Your task to perform on an android device: find snoozed emails in the gmail app Image 0: 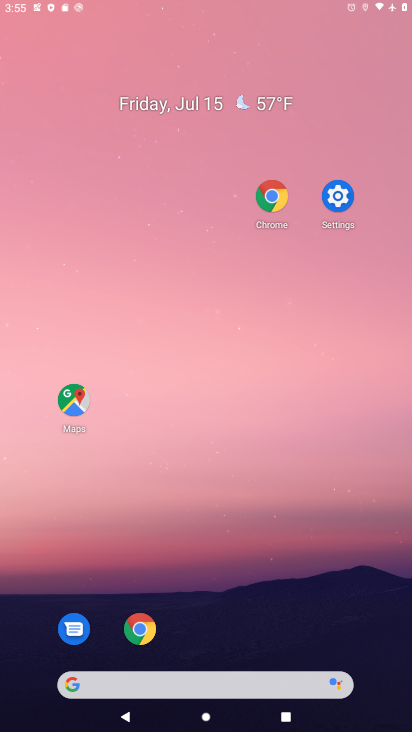
Step 0: click (171, 153)
Your task to perform on an android device: find snoozed emails in the gmail app Image 1: 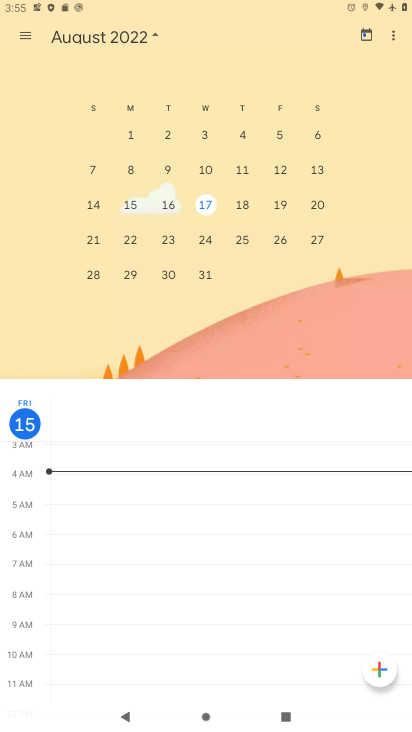
Step 1: drag from (210, 640) to (192, 228)
Your task to perform on an android device: find snoozed emails in the gmail app Image 2: 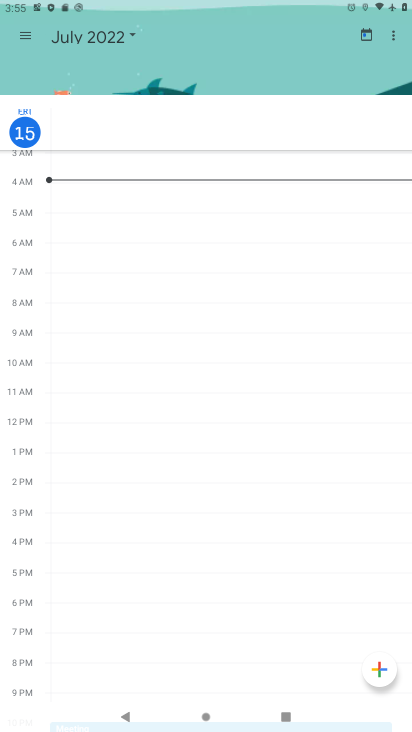
Step 2: press back button
Your task to perform on an android device: find snoozed emails in the gmail app Image 3: 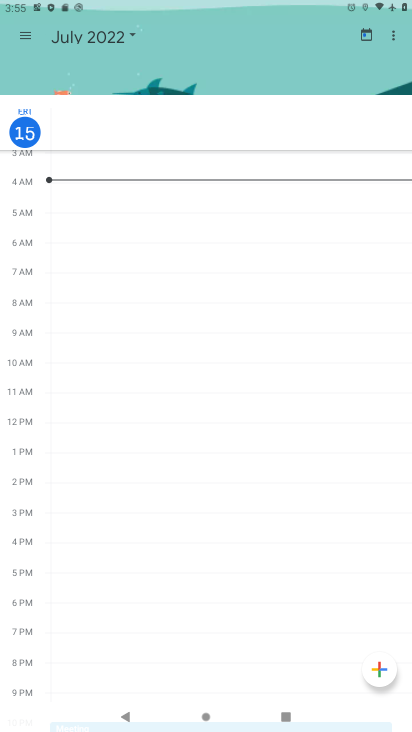
Step 3: press back button
Your task to perform on an android device: find snoozed emails in the gmail app Image 4: 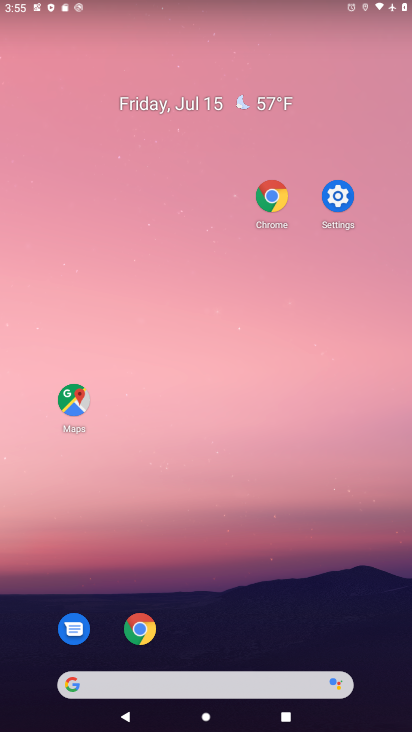
Step 4: press home button
Your task to perform on an android device: find snoozed emails in the gmail app Image 5: 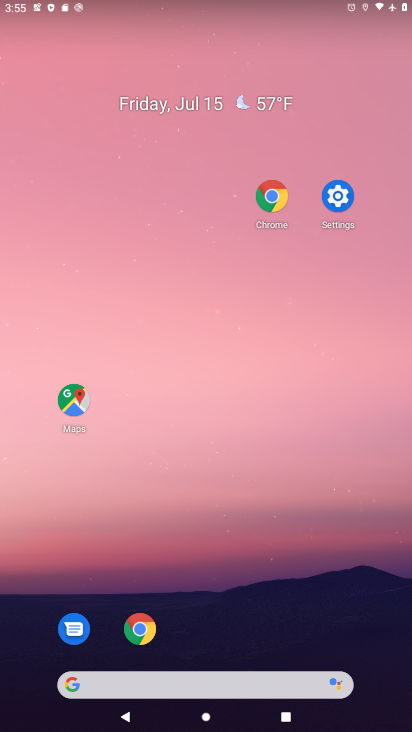
Step 5: drag from (177, 658) to (169, 95)
Your task to perform on an android device: find snoozed emails in the gmail app Image 6: 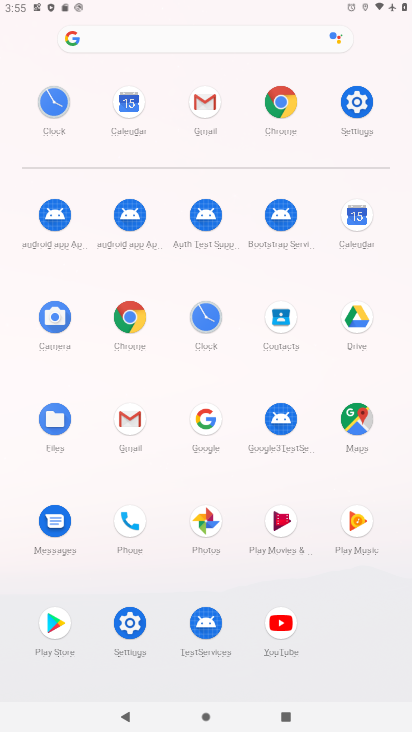
Step 6: click (137, 427)
Your task to perform on an android device: find snoozed emails in the gmail app Image 7: 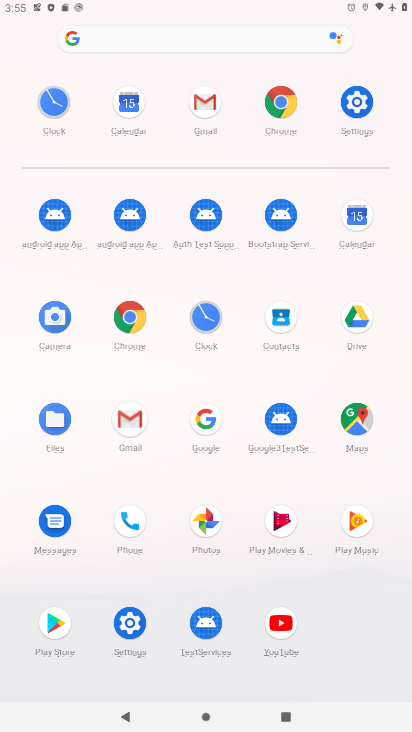
Step 7: click (136, 427)
Your task to perform on an android device: find snoozed emails in the gmail app Image 8: 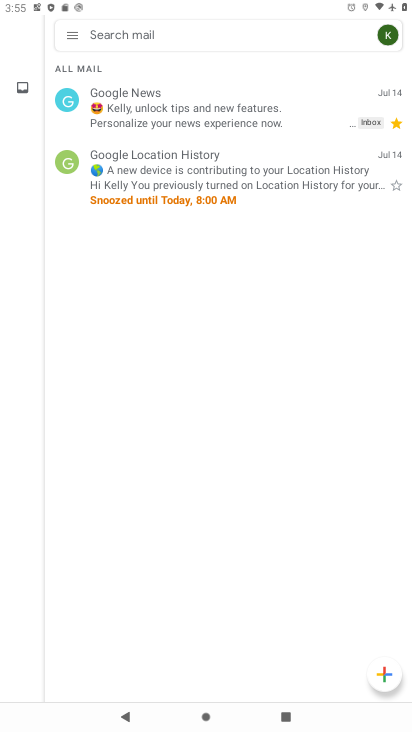
Step 8: click (136, 426)
Your task to perform on an android device: find snoozed emails in the gmail app Image 9: 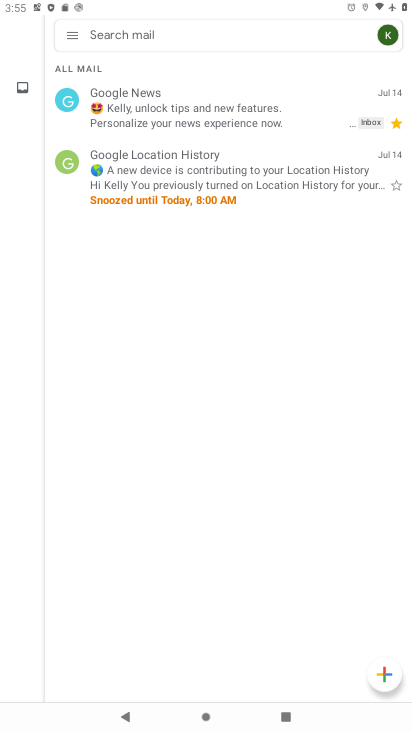
Step 9: click (137, 426)
Your task to perform on an android device: find snoozed emails in the gmail app Image 10: 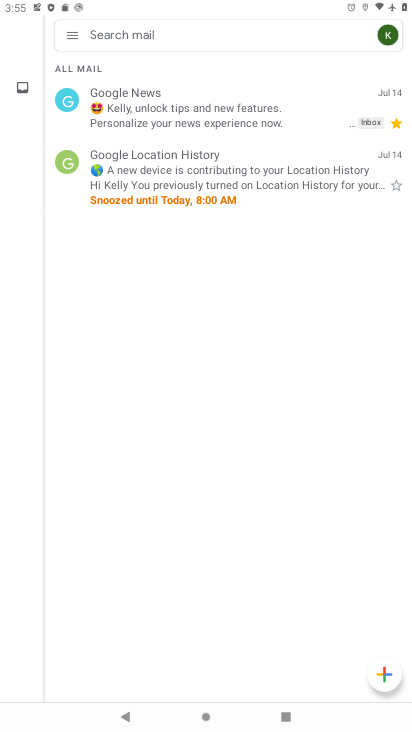
Step 10: click (184, 173)
Your task to perform on an android device: find snoozed emails in the gmail app Image 11: 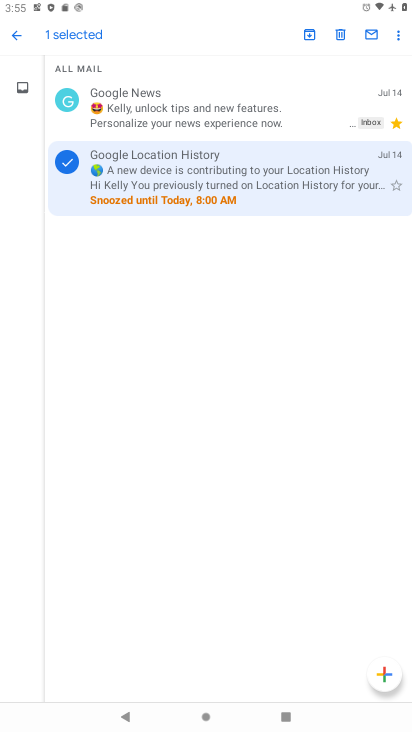
Step 11: click (395, 36)
Your task to perform on an android device: find snoozed emails in the gmail app Image 12: 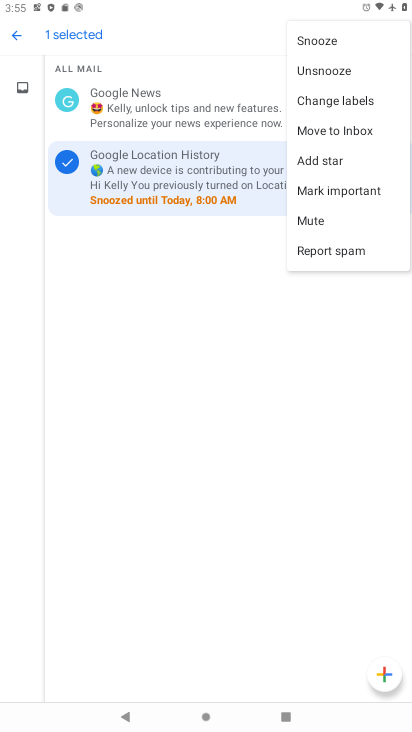
Step 12: click (324, 38)
Your task to perform on an android device: find snoozed emails in the gmail app Image 13: 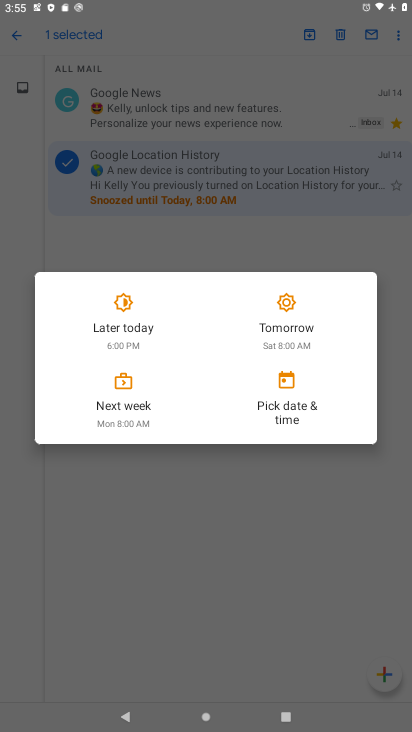
Step 13: click (283, 317)
Your task to perform on an android device: find snoozed emails in the gmail app Image 14: 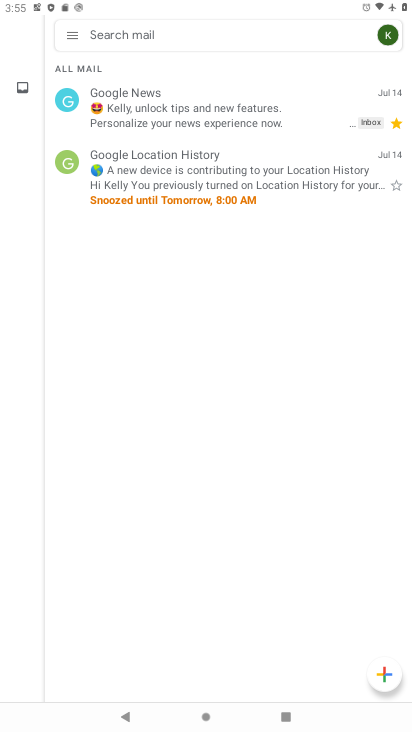
Step 14: task complete